Your task to perform on an android device: change notification settings in the gmail app Image 0: 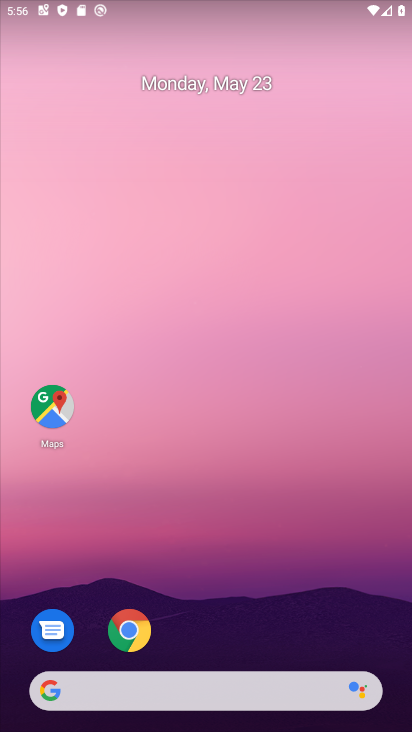
Step 0: drag from (240, 583) to (242, 0)
Your task to perform on an android device: change notification settings in the gmail app Image 1: 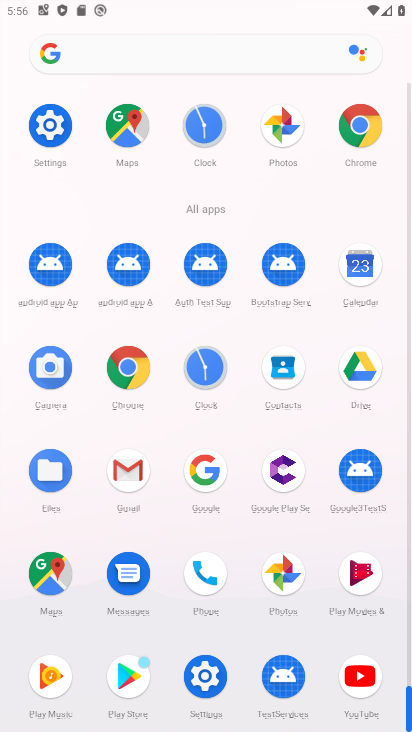
Step 1: drag from (7, 472) to (21, 133)
Your task to perform on an android device: change notification settings in the gmail app Image 2: 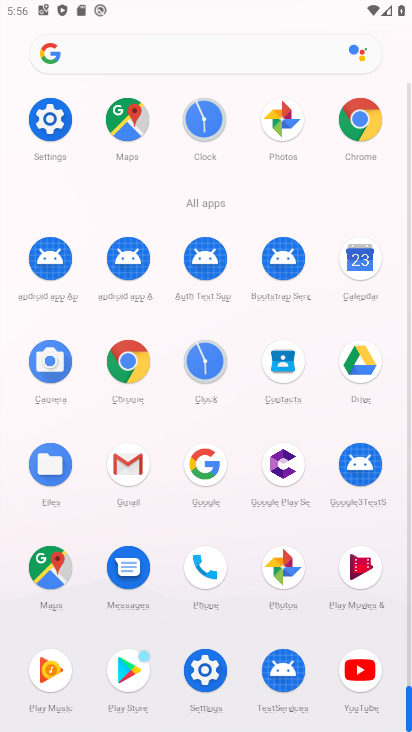
Step 2: click (123, 461)
Your task to perform on an android device: change notification settings in the gmail app Image 3: 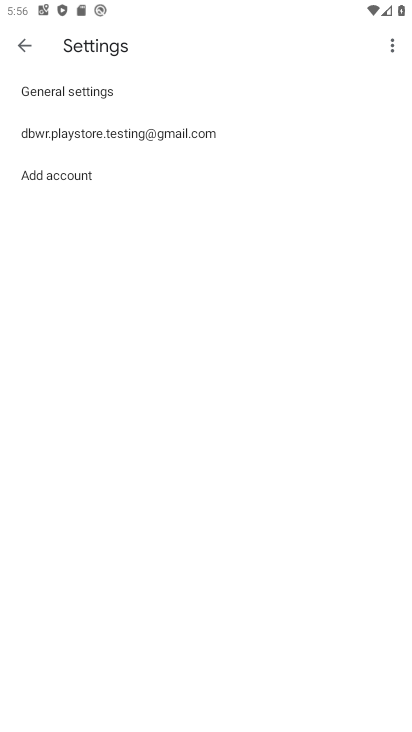
Step 3: click (95, 136)
Your task to perform on an android device: change notification settings in the gmail app Image 4: 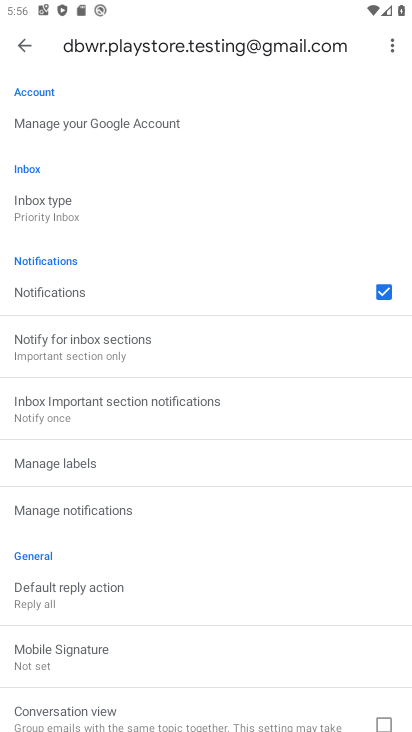
Step 4: drag from (201, 503) to (265, 66)
Your task to perform on an android device: change notification settings in the gmail app Image 5: 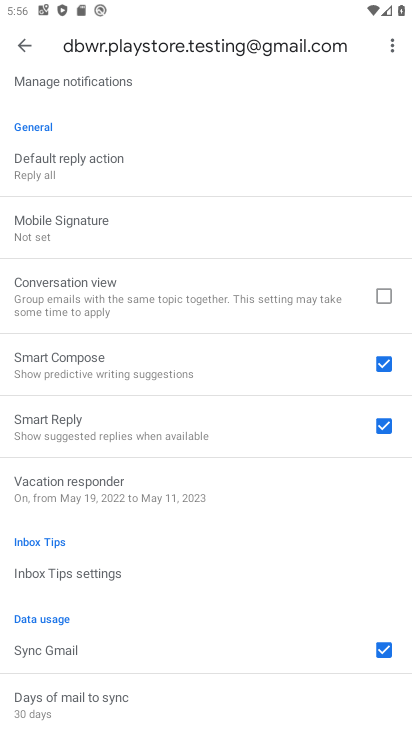
Step 5: drag from (205, 485) to (203, 124)
Your task to perform on an android device: change notification settings in the gmail app Image 6: 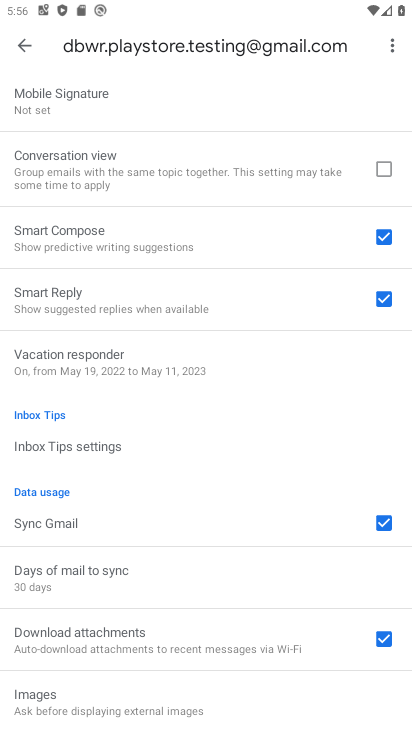
Step 6: drag from (203, 122) to (217, 540)
Your task to perform on an android device: change notification settings in the gmail app Image 7: 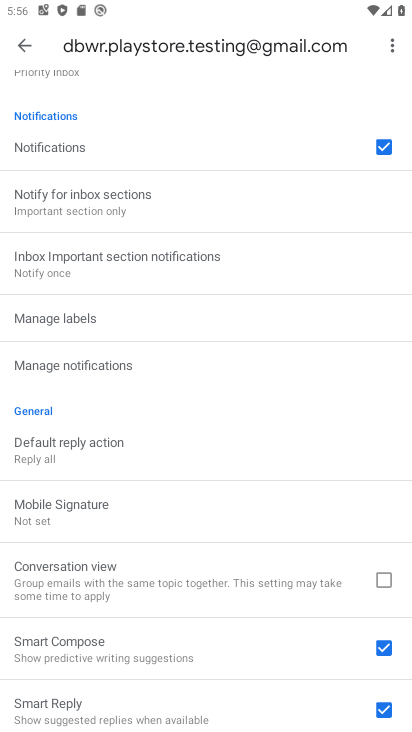
Step 7: drag from (214, 556) to (206, 89)
Your task to perform on an android device: change notification settings in the gmail app Image 8: 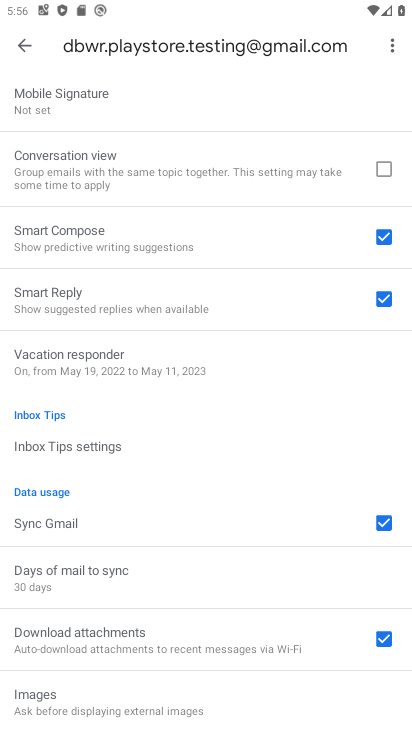
Step 8: drag from (197, 457) to (185, 571)
Your task to perform on an android device: change notification settings in the gmail app Image 9: 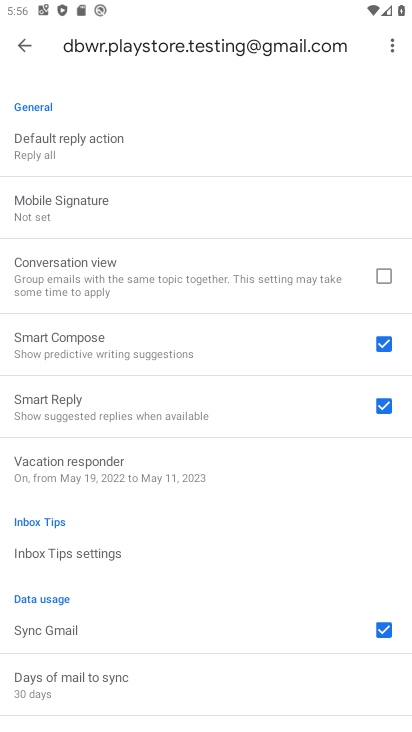
Step 9: drag from (226, 189) to (209, 552)
Your task to perform on an android device: change notification settings in the gmail app Image 10: 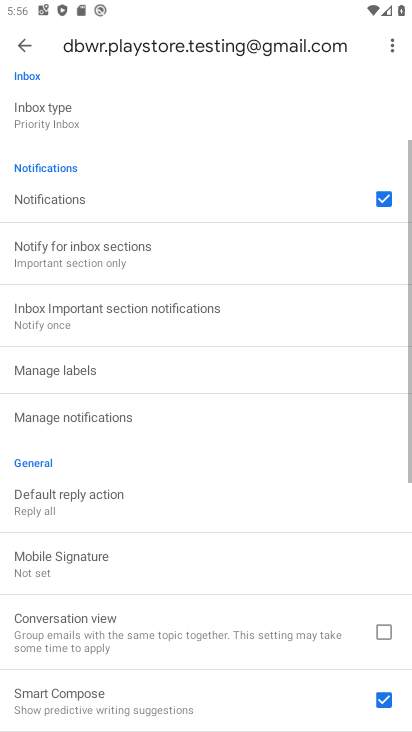
Step 10: drag from (216, 302) to (224, 552)
Your task to perform on an android device: change notification settings in the gmail app Image 11: 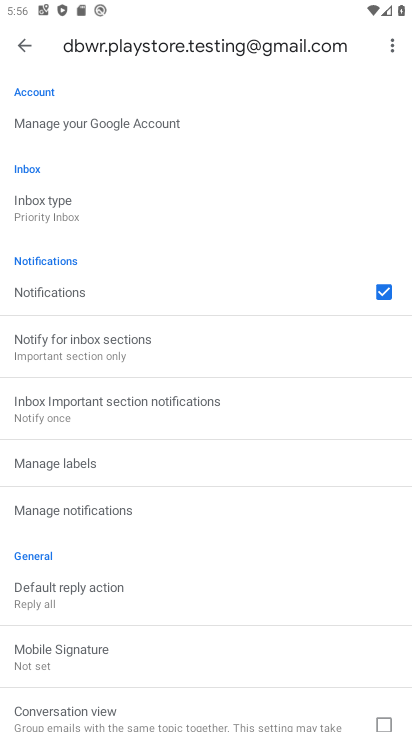
Step 11: click (213, 508)
Your task to perform on an android device: change notification settings in the gmail app Image 12: 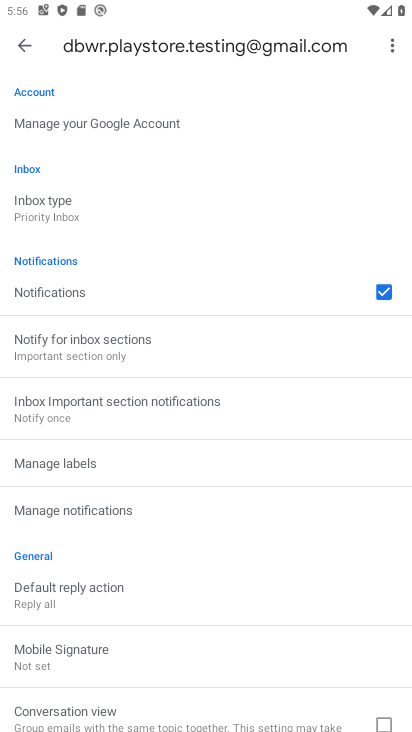
Step 12: drag from (216, 568) to (218, 133)
Your task to perform on an android device: change notification settings in the gmail app Image 13: 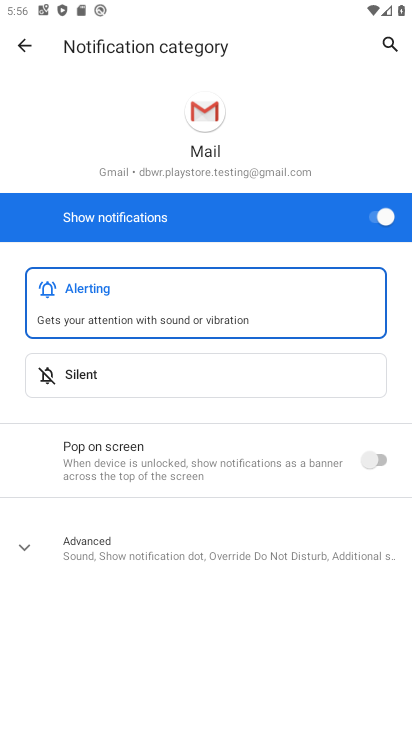
Step 13: click (36, 45)
Your task to perform on an android device: change notification settings in the gmail app Image 14: 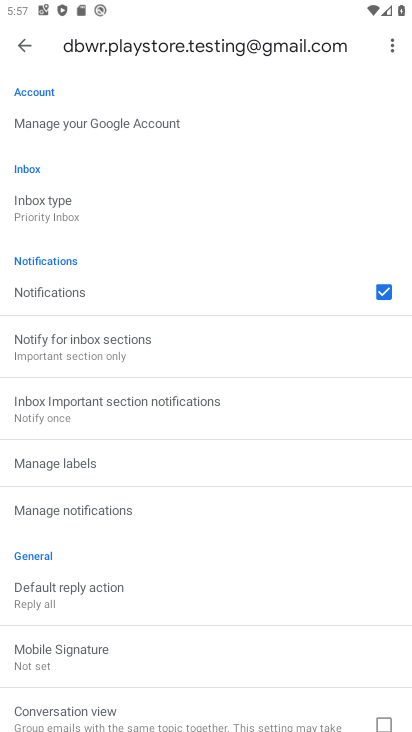
Step 14: click (110, 508)
Your task to perform on an android device: change notification settings in the gmail app Image 15: 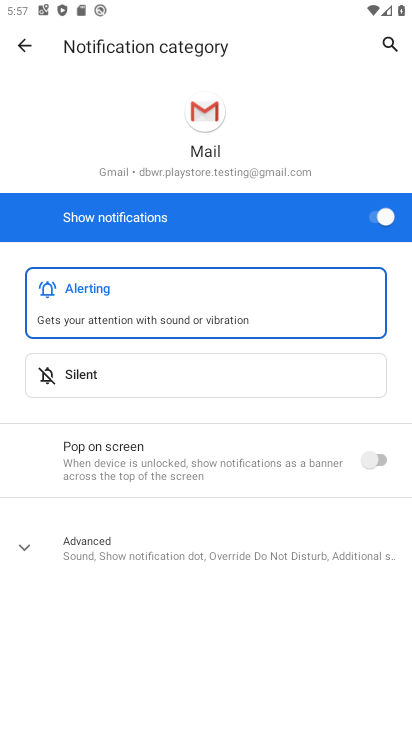
Step 15: click (388, 214)
Your task to perform on an android device: change notification settings in the gmail app Image 16: 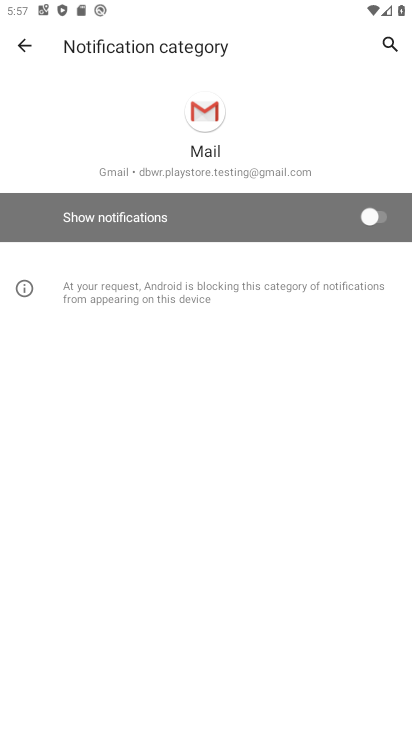
Step 16: task complete